Your task to perform on an android device: Go to Google Image 0: 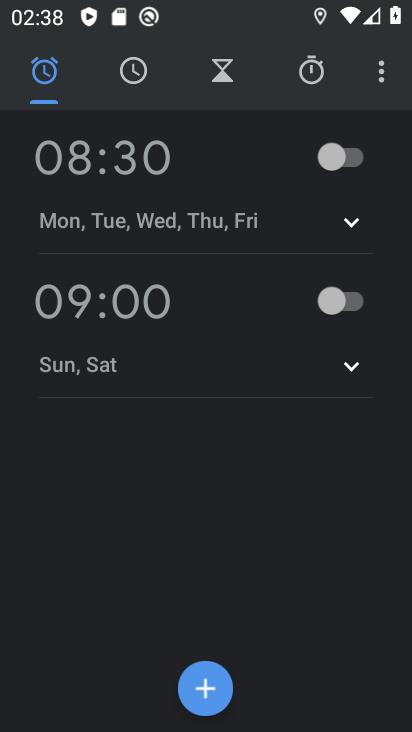
Step 0: press home button
Your task to perform on an android device: Go to Google Image 1: 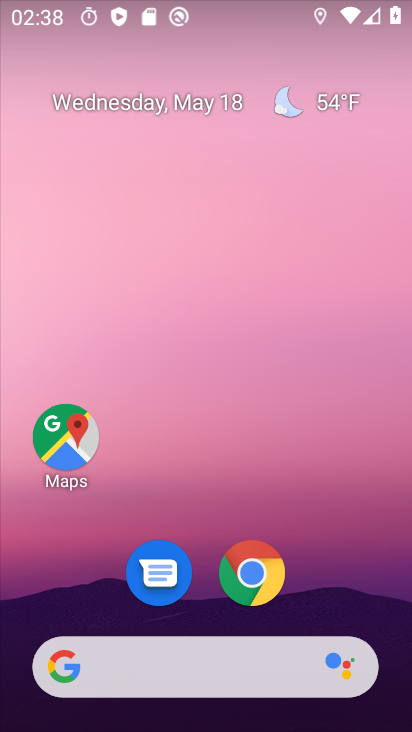
Step 1: drag from (205, 618) to (230, 289)
Your task to perform on an android device: Go to Google Image 2: 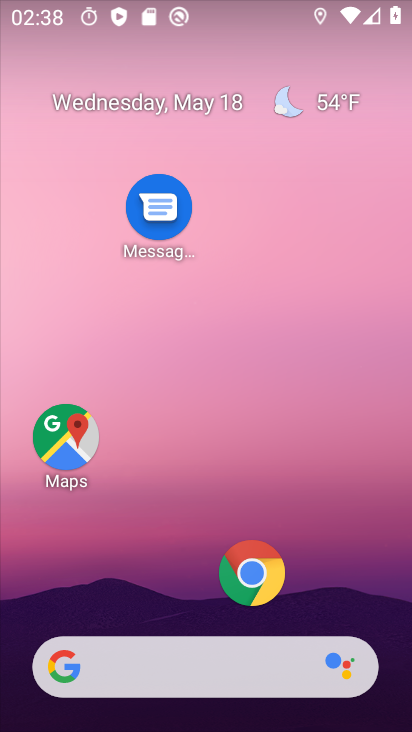
Step 2: drag from (190, 609) to (260, 147)
Your task to perform on an android device: Go to Google Image 3: 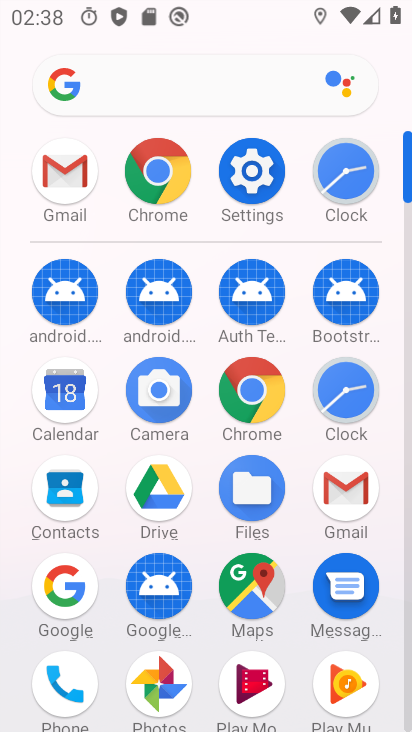
Step 3: click (75, 595)
Your task to perform on an android device: Go to Google Image 4: 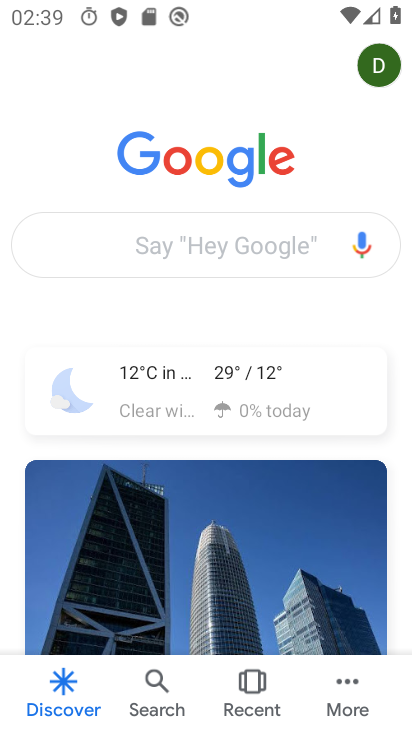
Step 4: task complete